Your task to perform on an android device: toggle notifications settings in the gmail app Image 0: 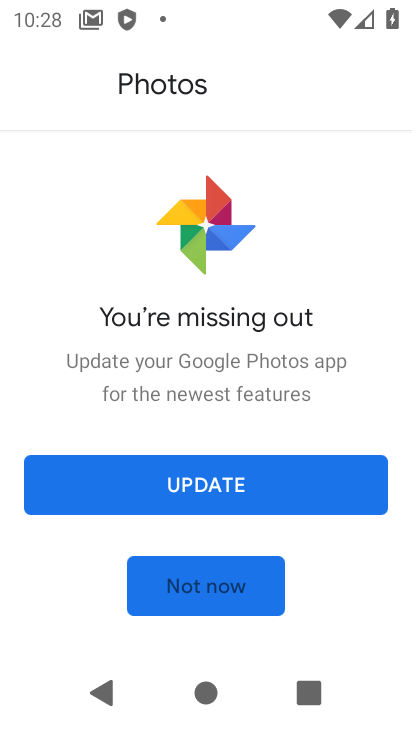
Step 0: press home button
Your task to perform on an android device: toggle notifications settings in the gmail app Image 1: 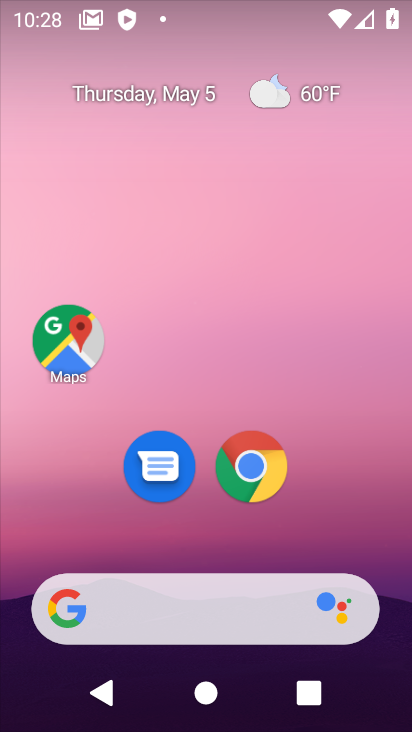
Step 1: drag from (178, 564) to (227, 195)
Your task to perform on an android device: toggle notifications settings in the gmail app Image 2: 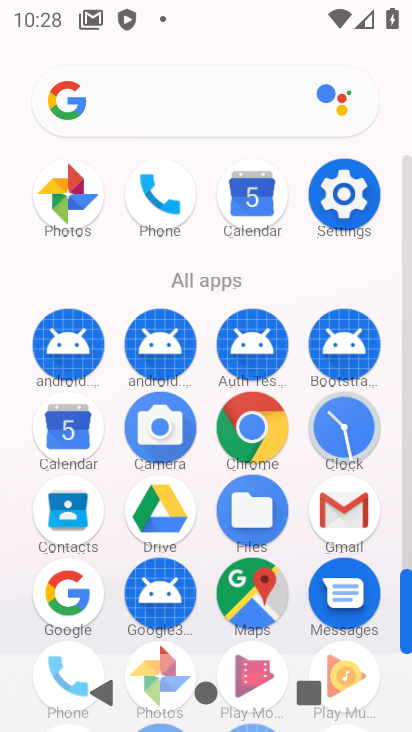
Step 2: click (355, 528)
Your task to perform on an android device: toggle notifications settings in the gmail app Image 3: 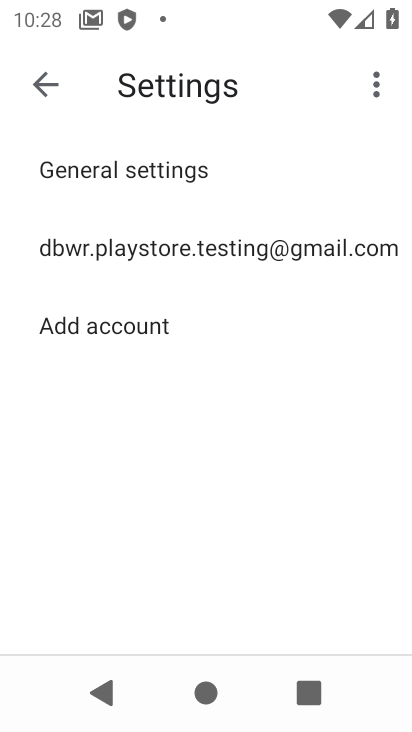
Step 3: click (123, 246)
Your task to perform on an android device: toggle notifications settings in the gmail app Image 4: 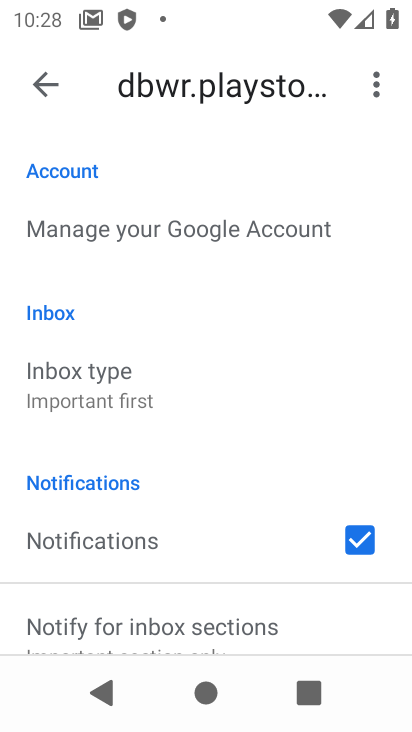
Step 4: click (127, 231)
Your task to perform on an android device: toggle notifications settings in the gmail app Image 5: 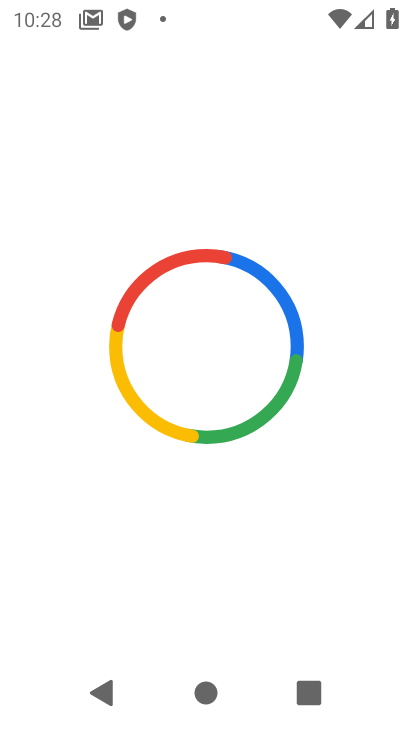
Step 5: press back button
Your task to perform on an android device: toggle notifications settings in the gmail app Image 6: 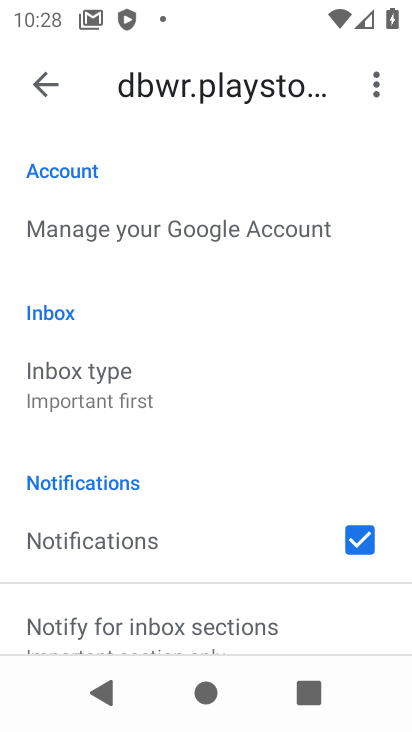
Step 6: click (55, 81)
Your task to perform on an android device: toggle notifications settings in the gmail app Image 7: 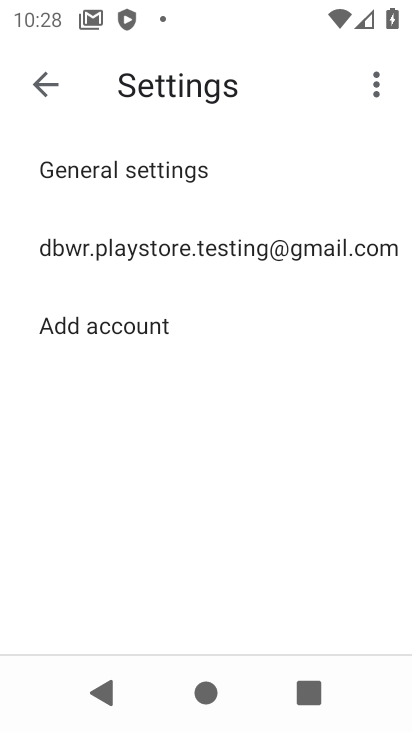
Step 7: click (97, 167)
Your task to perform on an android device: toggle notifications settings in the gmail app Image 8: 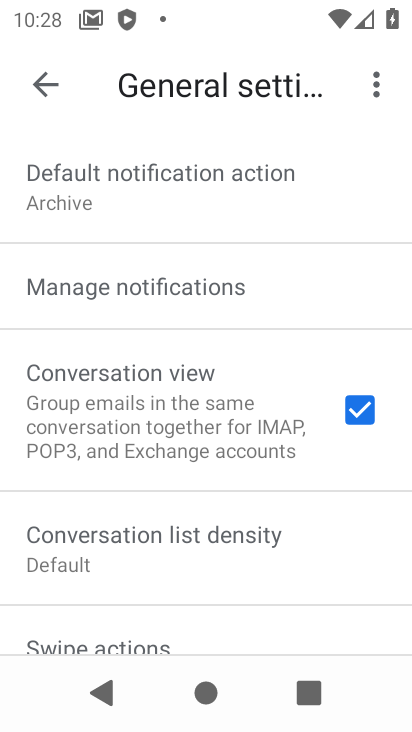
Step 8: click (90, 286)
Your task to perform on an android device: toggle notifications settings in the gmail app Image 9: 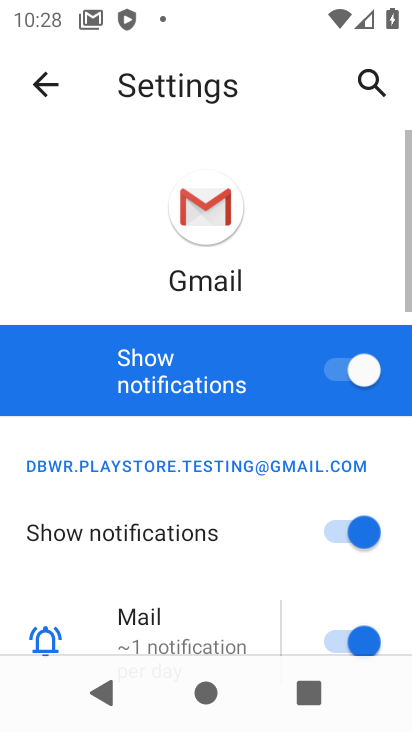
Step 9: click (336, 373)
Your task to perform on an android device: toggle notifications settings in the gmail app Image 10: 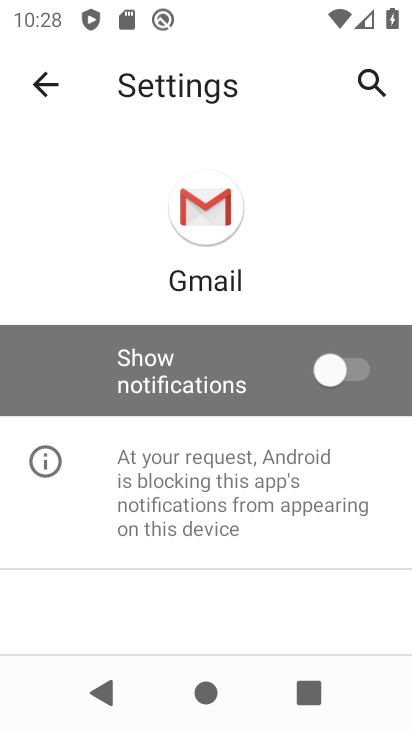
Step 10: task complete